Your task to perform on an android device: What's the weather going to be this weekend? Image 0: 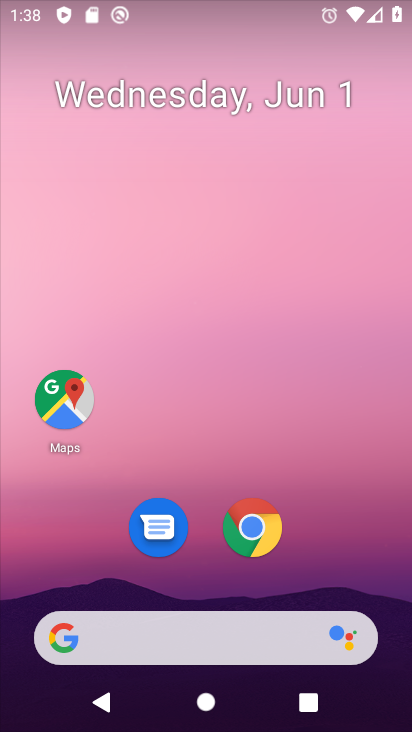
Step 0: drag from (395, 564) to (288, 122)
Your task to perform on an android device: What's the weather going to be this weekend? Image 1: 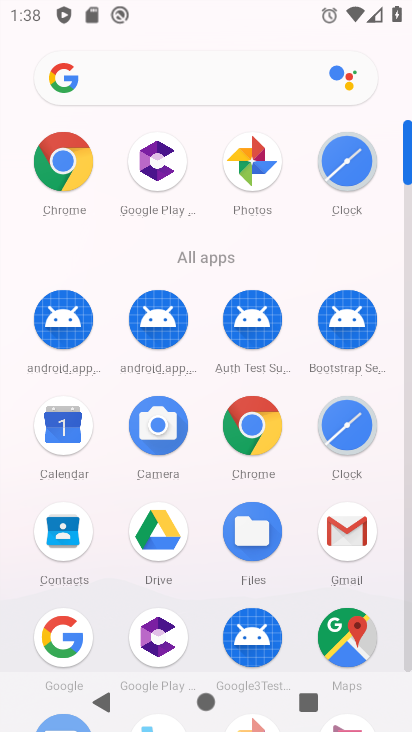
Step 1: click (63, 151)
Your task to perform on an android device: What's the weather going to be this weekend? Image 2: 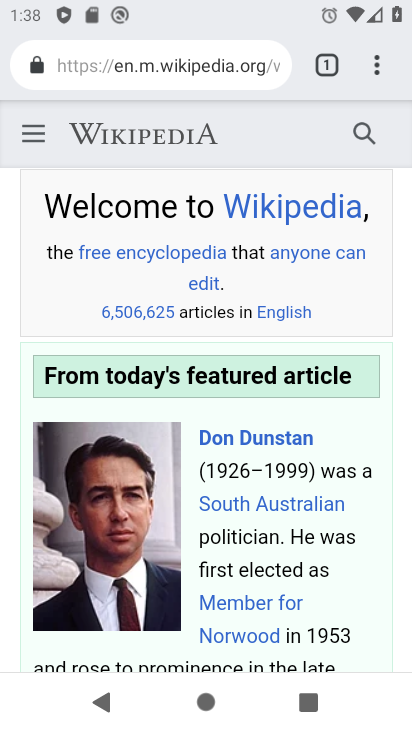
Step 2: click (212, 59)
Your task to perform on an android device: What's the weather going to be this weekend? Image 3: 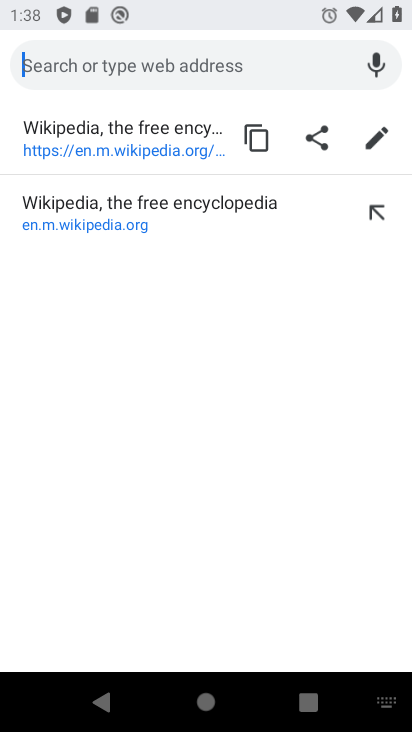
Step 3: type "What's the weather going to be this weekend?"
Your task to perform on an android device: What's the weather going to be this weekend? Image 4: 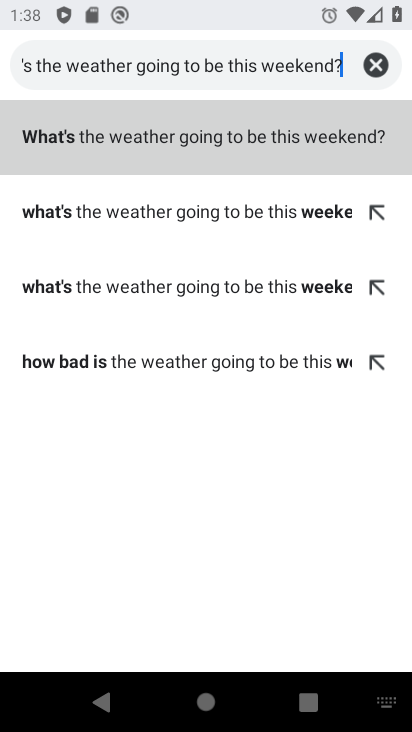
Step 4: click (298, 136)
Your task to perform on an android device: What's the weather going to be this weekend? Image 5: 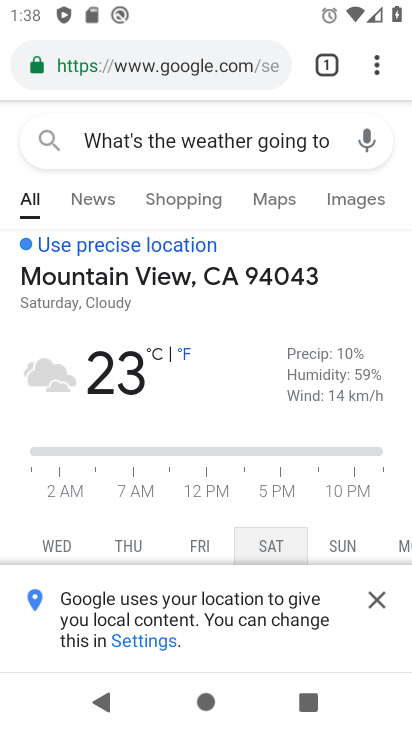
Step 5: click (380, 603)
Your task to perform on an android device: What's the weather going to be this weekend? Image 6: 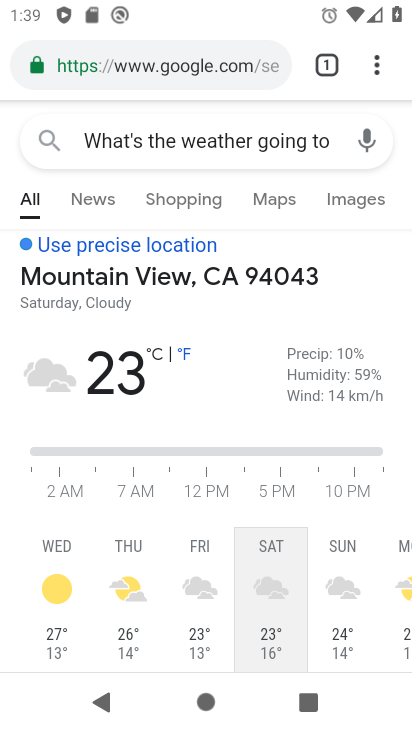
Step 6: task complete